Your task to perform on an android device: open app "Pinterest" Image 0: 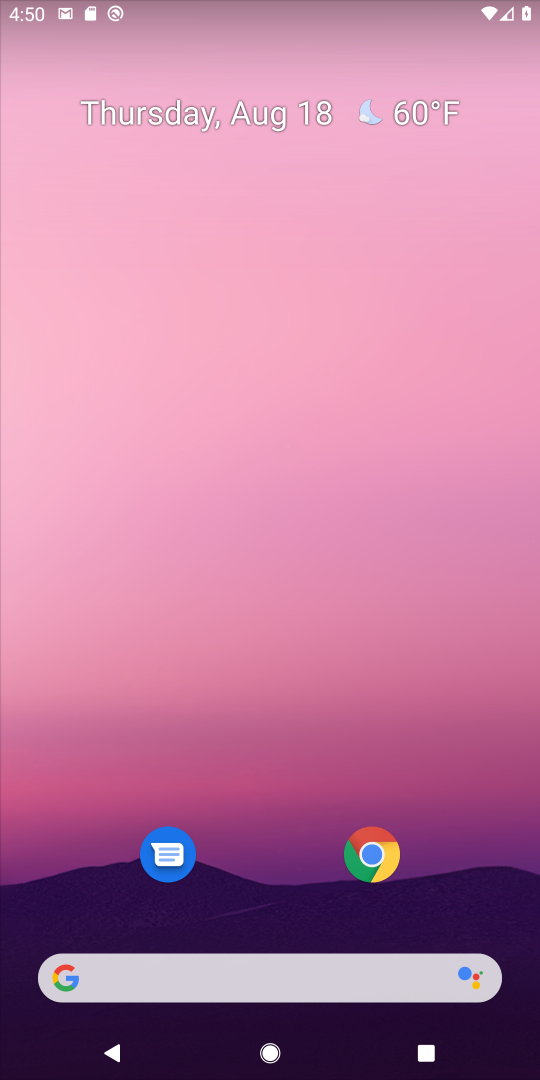
Step 0: click (213, 80)
Your task to perform on an android device: open app "Pinterest" Image 1: 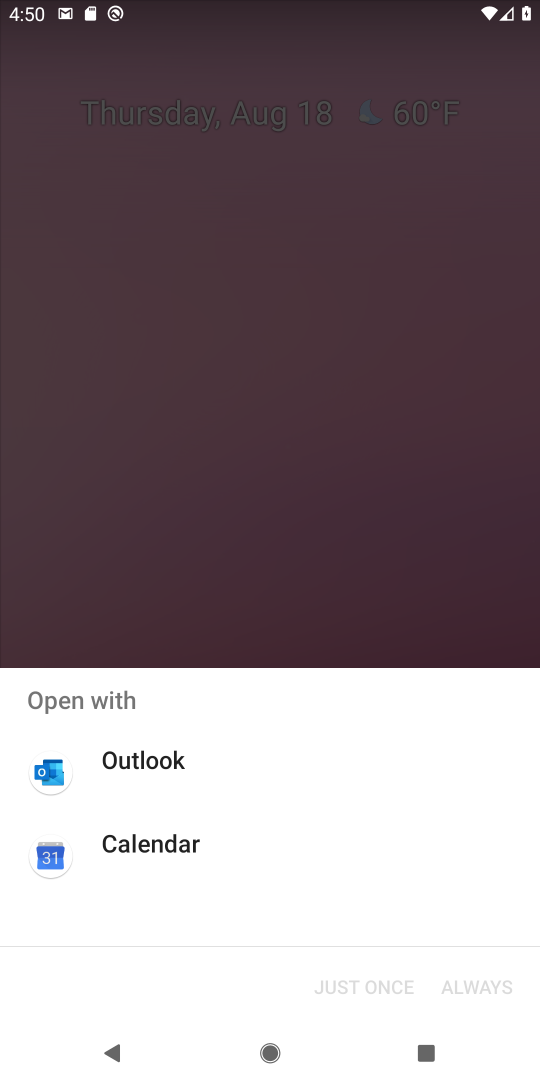
Step 1: press home button
Your task to perform on an android device: open app "Pinterest" Image 2: 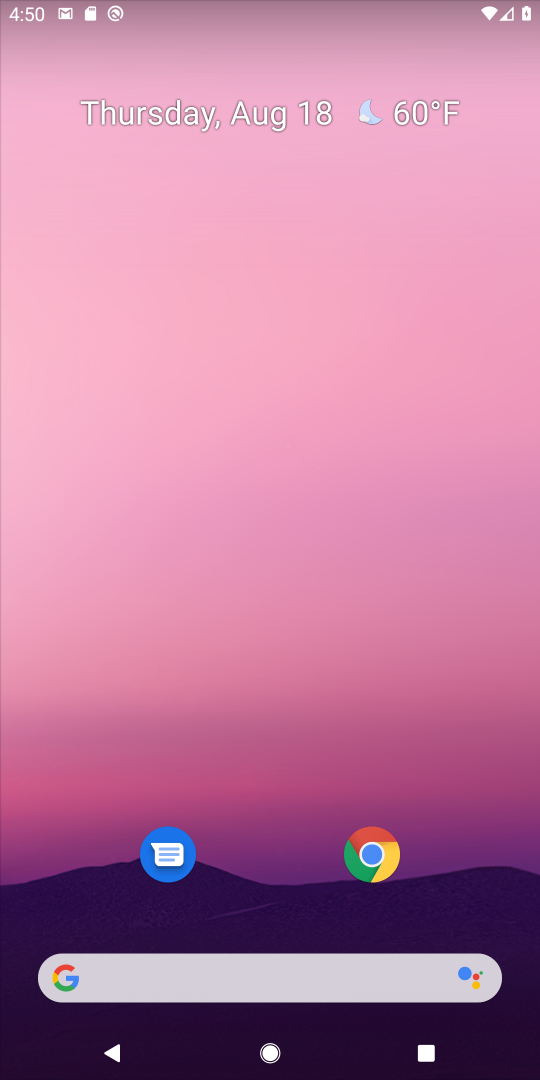
Step 2: drag from (256, 842) to (236, 48)
Your task to perform on an android device: open app "Pinterest" Image 3: 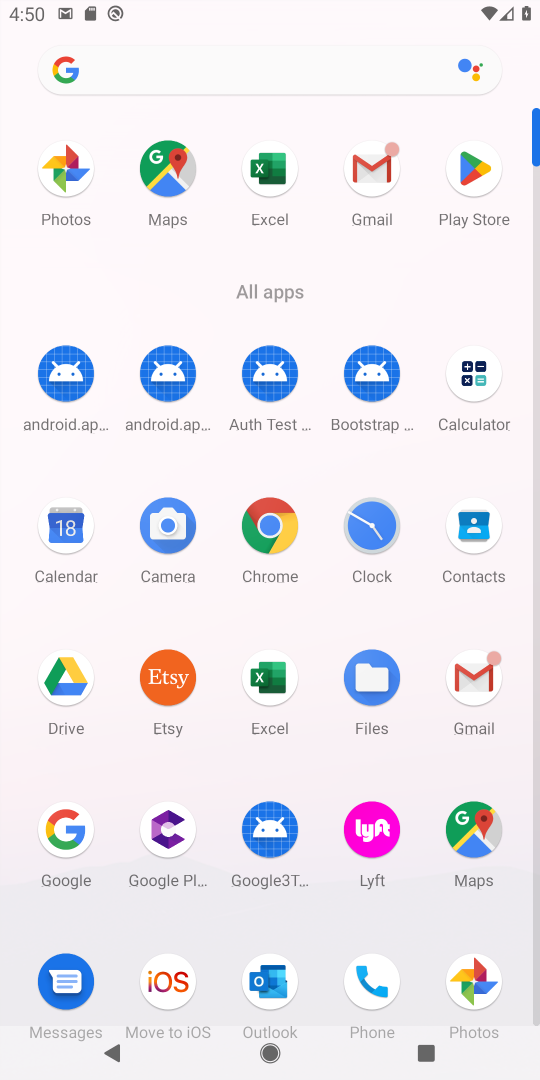
Step 3: click (476, 177)
Your task to perform on an android device: open app "Pinterest" Image 4: 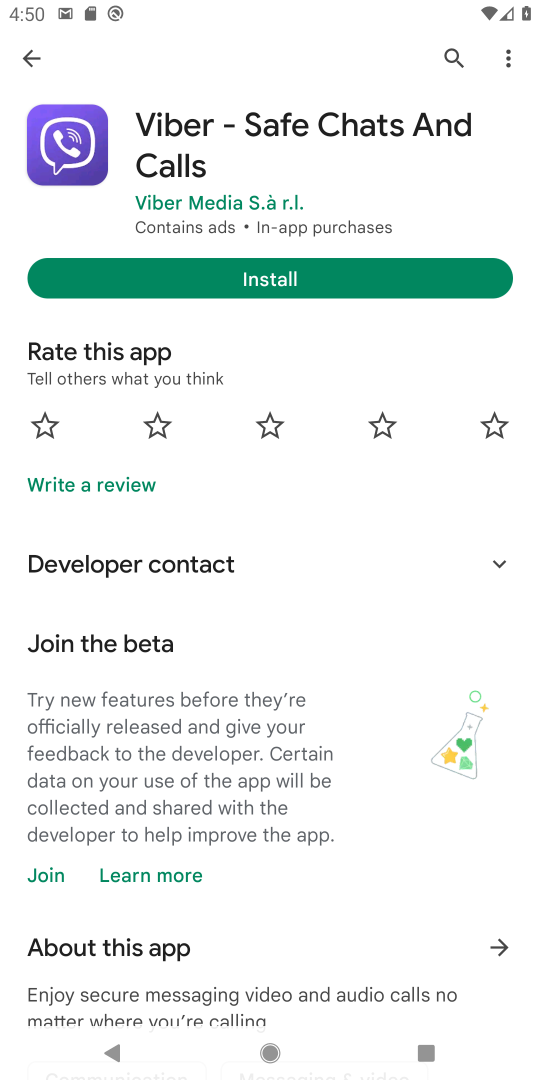
Step 4: click (39, 73)
Your task to perform on an android device: open app "Pinterest" Image 5: 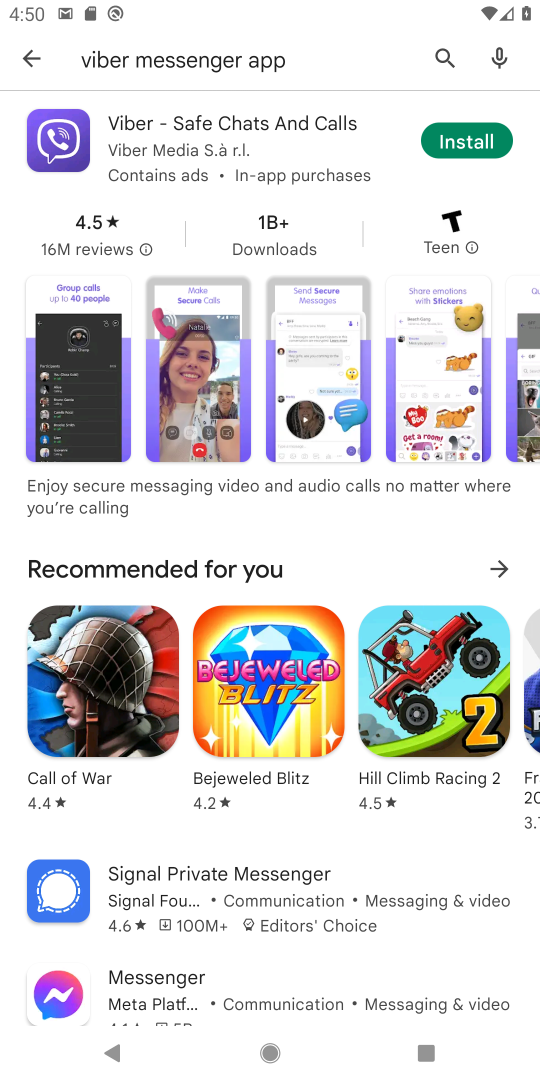
Step 5: click (32, 62)
Your task to perform on an android device: open app "Pinterest" Image 6: 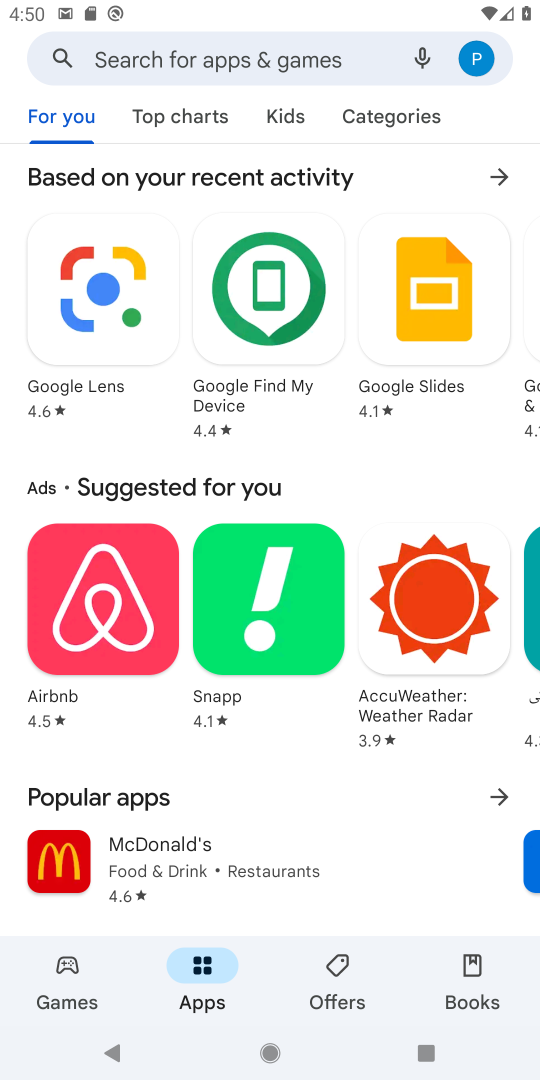
Step 6: click (176, 62)
Your task to perform on an android device: open app "Pinterest" Image 7: 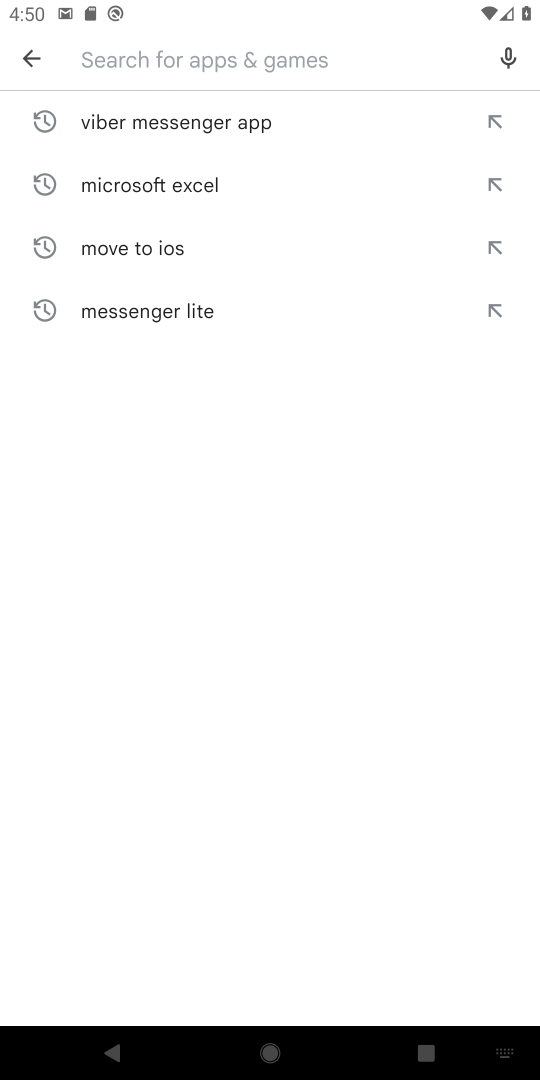
Step 7: type "Pinterest"
Your task to perform on an android device: open app "Pinterest" Image 8: 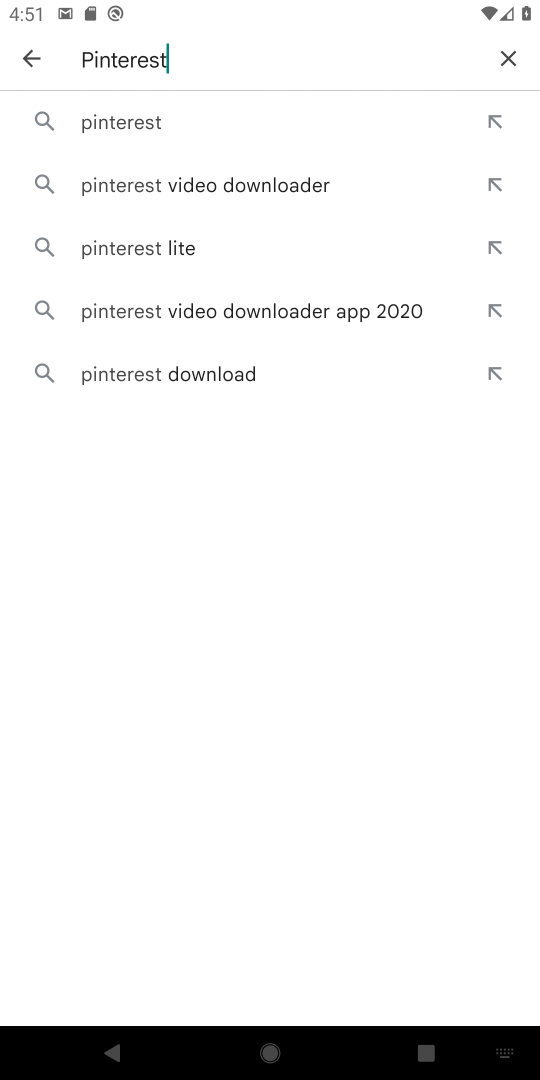
Step 8: click (118, 125)
Your task to perform on an android device: open app "Pinterest" Image 9: 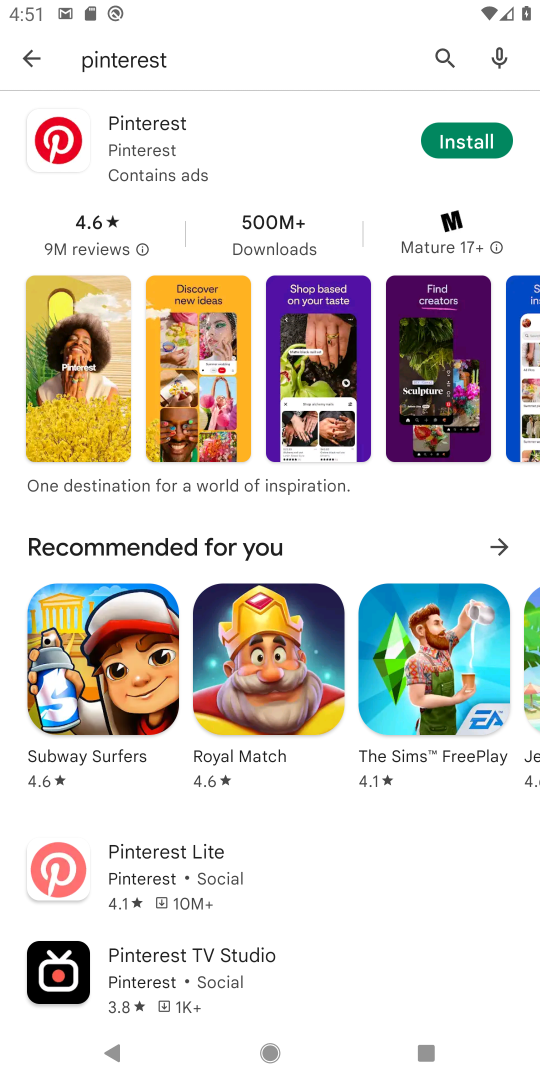
Step 9: click (451, 145)
Your task to perform on an android device: open app "Pinterest" Image 10: 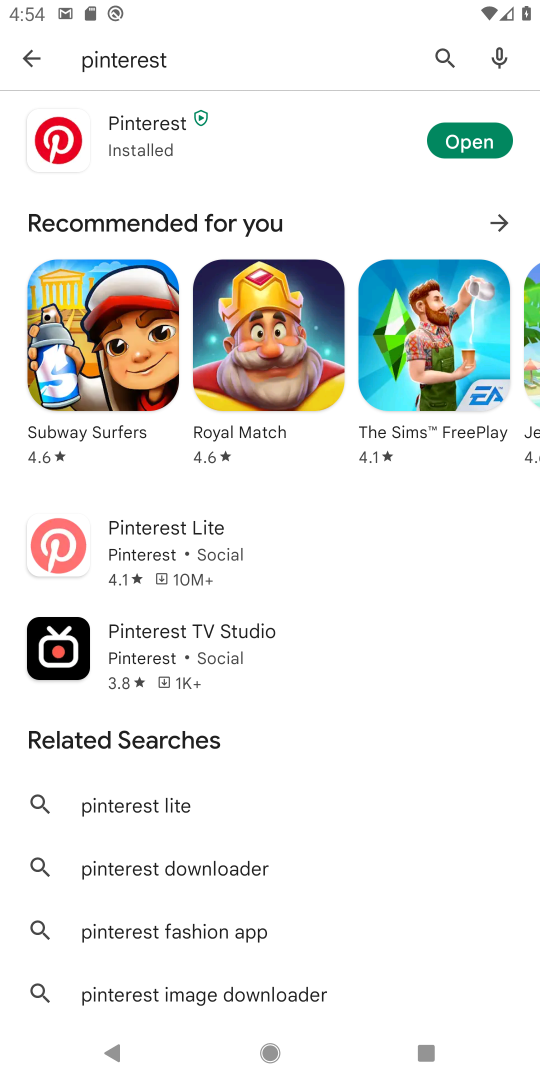
Step 10: click (441, 145)
Your task to perform on an android device: open app "Pinterest" Image 11: 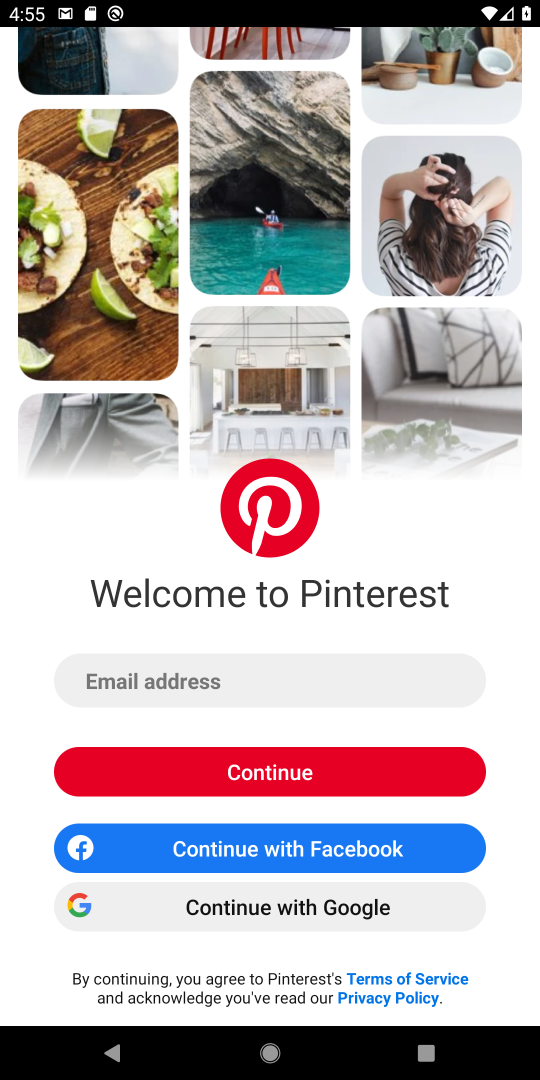
Step 11: task complete